Your task to perform on an android device: see creations saved in the google photos Image 0: 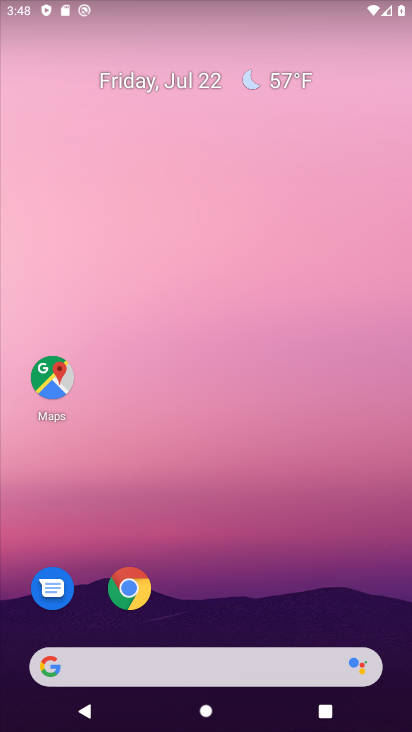
Step 0: drag from (220, 635) to (201, 54)
Your task to perform on an android device: see creations saved in the google photos Image 1: 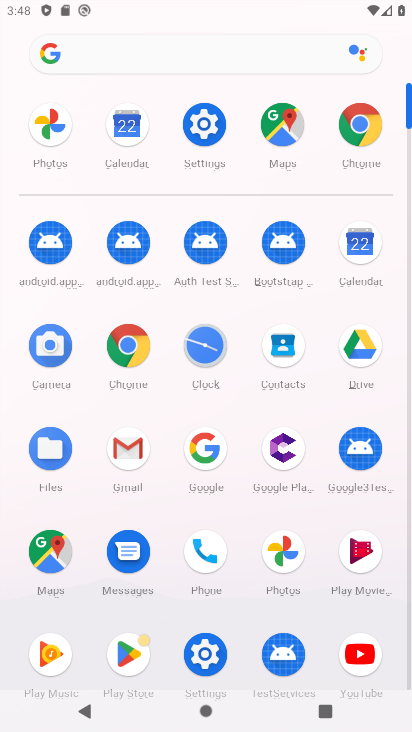
Step 1: click (284, 552)
Your task to perform on an android device: see creations saved in the google photos Image 2: 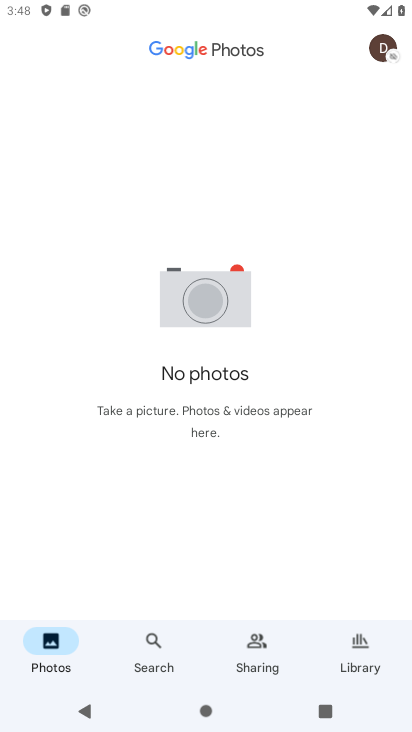
Step 2: click (164, 652)
Your task to perform on an android device: see creations saved in the google photos Image 3: 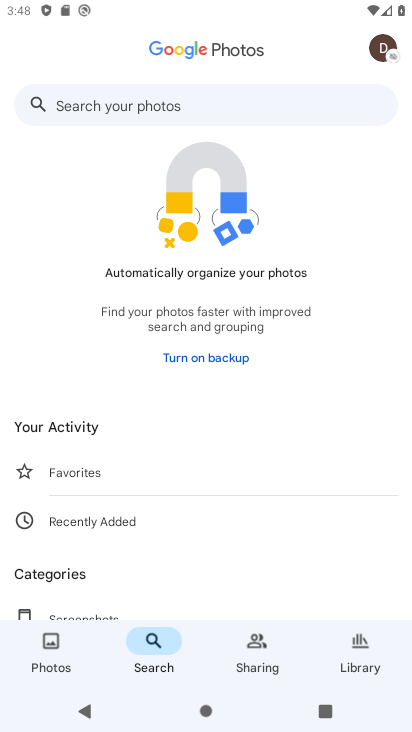
Step 3: click (182, 101)
Your task to perform on an android device: see creations saved in the google photos Image 4: 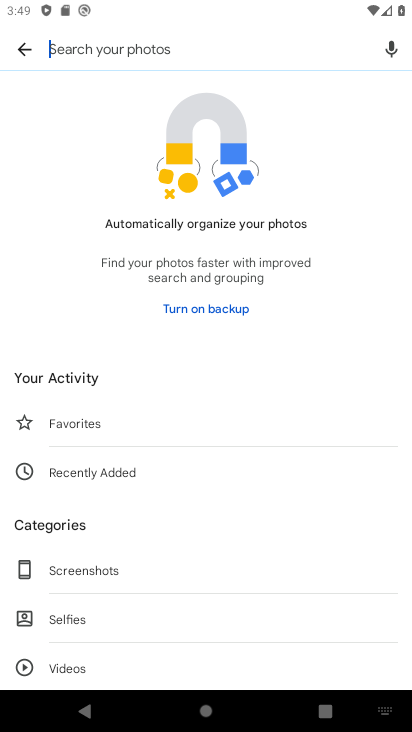
Step 4: drag from (75, 555) to (75, 245)
Your task to perform on an android device: see creations saved in the google photos Image 5: 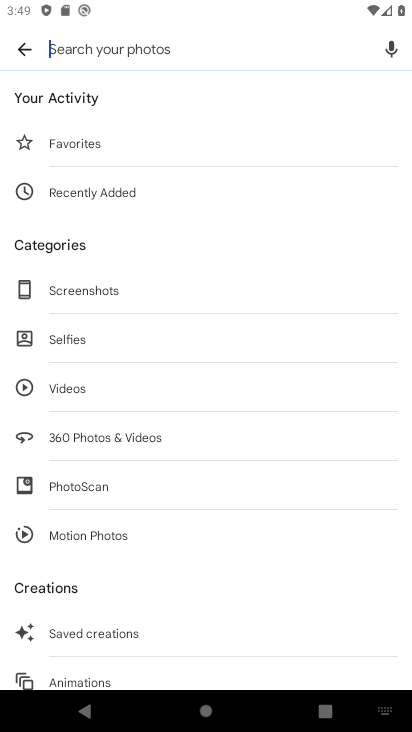
Step 5: click (110, 639)
Your task to perform on an android device: see creations saved in the google photos Image 6: 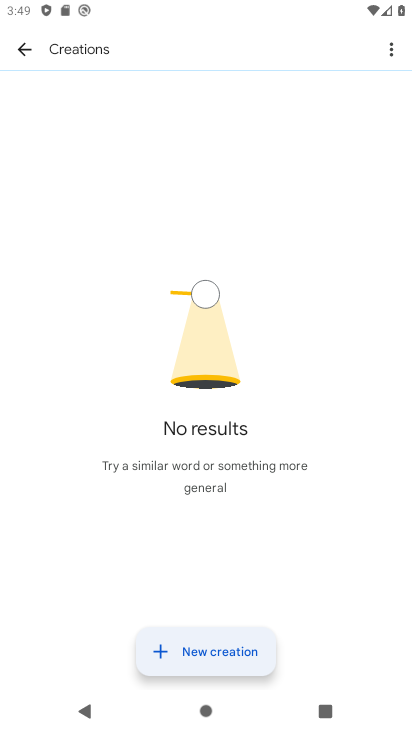
Step 6: task complete